Your task to perform on an android device: Go to CNN.com Image 0: 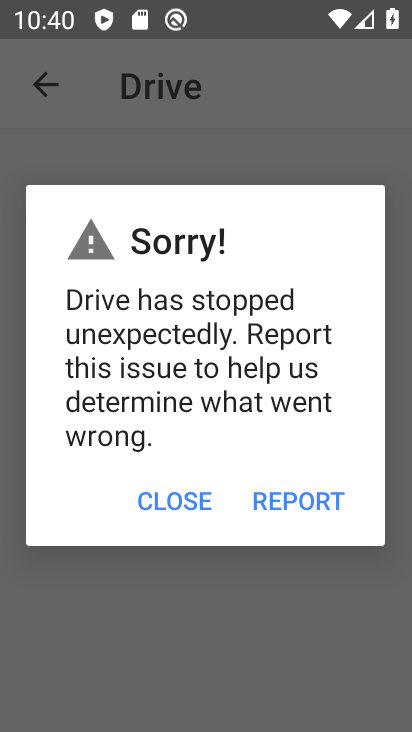
Step 0: click (183, 513)
Your task to perform on an android device: Go to CNN.com Image 1: 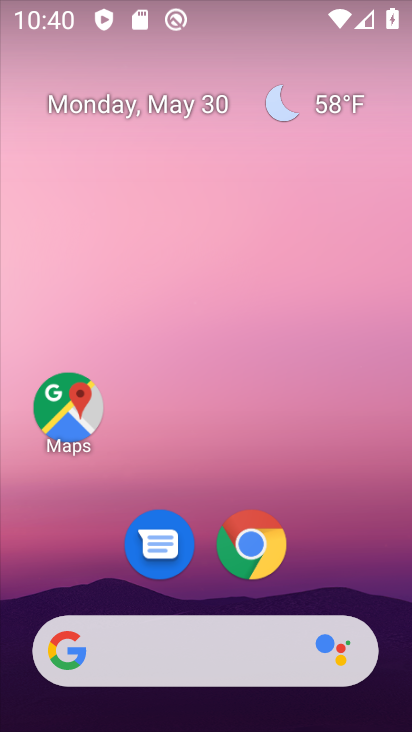
Step 1: click (202, 670)
Your task to perform on an android device: Go to CNN.com Image 2: 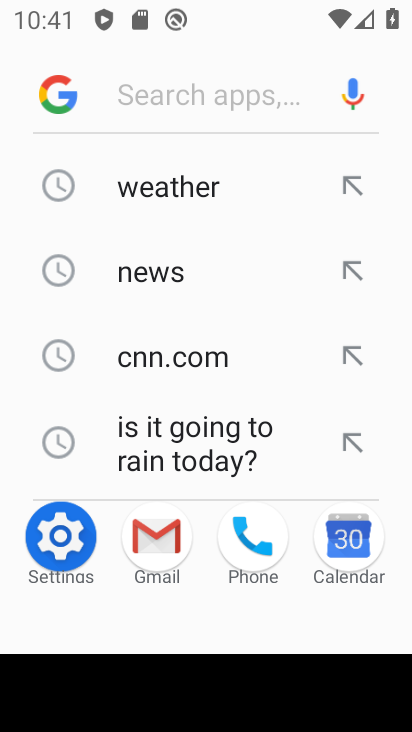
Step 2: click (129, 344)
Your task to perform on an android device: Go to CNN.com Image 3: 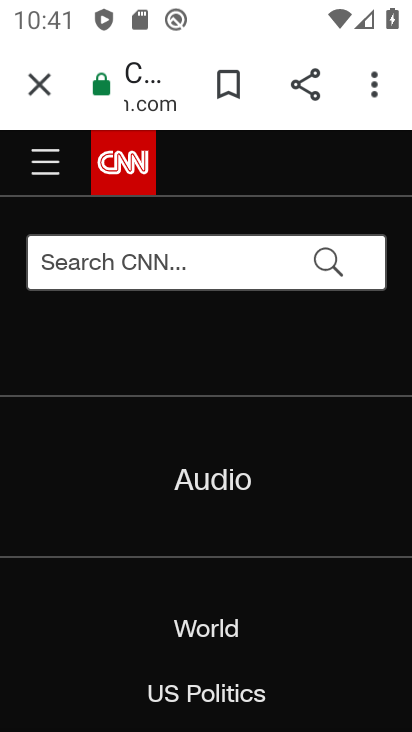
Step 3: task complete